Your task to perform on an android device: Open Youtube and go to the subscriptions tab Image 0: 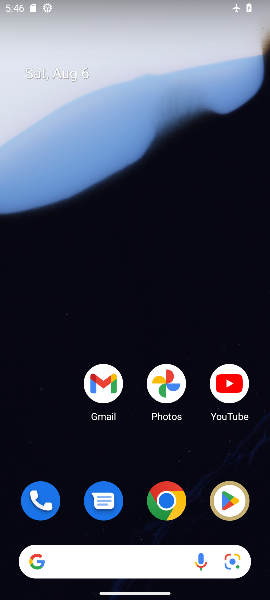
Step 0: drag from (202, 347) to (146, 0)
Your task to perform on an android device: Open Youtube and go to the subscriptions tab Image 1: 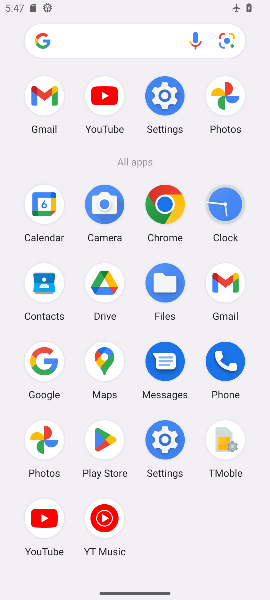
Step 1: click (41, 531)
Your task to perform on an android device: Open Youtube and go to the subscriptions tab Image 2: 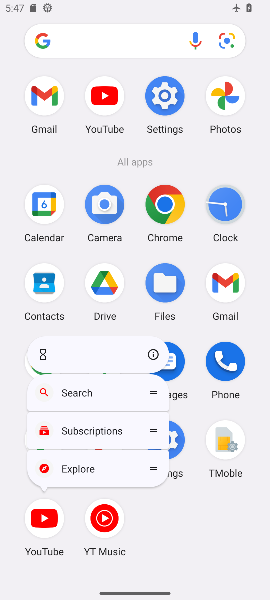
Step 2: click (41, 531)
Your task to perform on an android device: Open Youtube and go to the subscriptions tab Image 3: 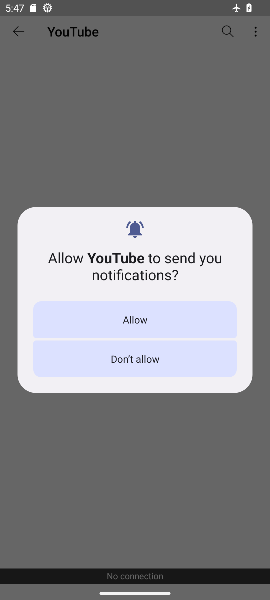
Step 3: click (147, 322)
Your task to perform on an android device: Open Youtube and go to the subscriptions tab Image 4: 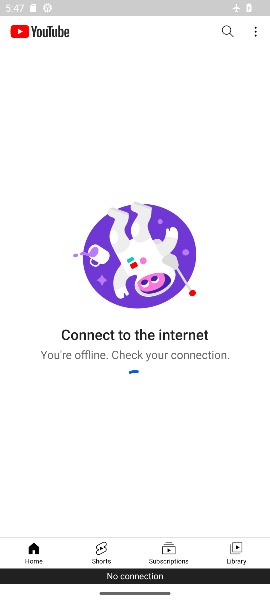
Step 4: click (175, 552)
Your task to perform on an android device: Open Youtube and go to the subscriptions tab Image 5: 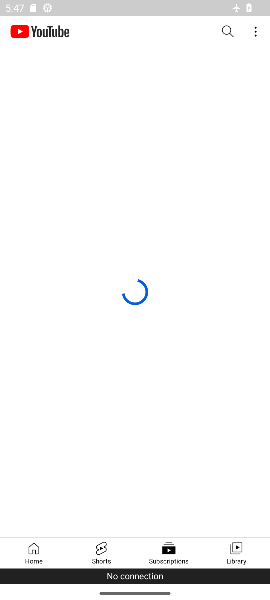
Step 5: task complete